Your task to perform on an android device: Go to CNN.com Image 0: 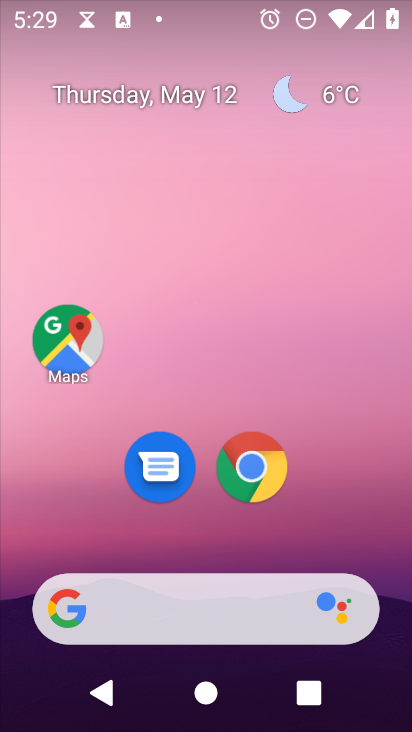
Step 0: drag from (344, 624) to (321, 17)
Your task to perform on an android device: Go to CNN.com Image 1: 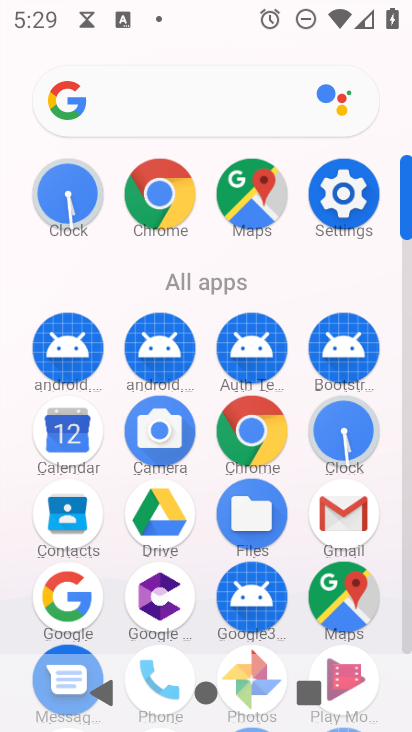
Step 1: click (274, 432)
Your task to perform on an android device: Go to CNN.com Image 2: 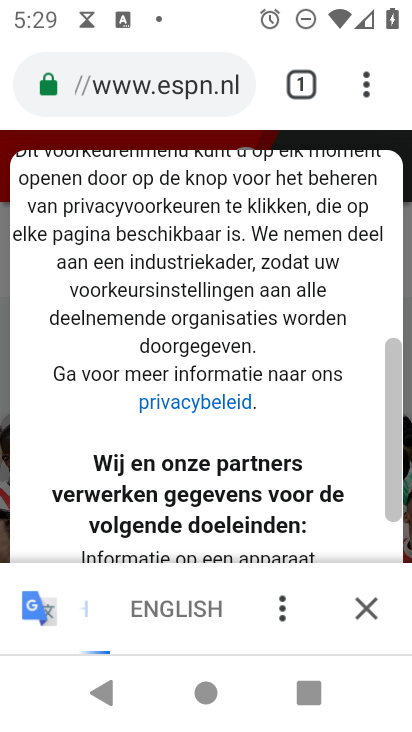
Step 2: click (252, 94)
Your task to perform on an android device: Go to CNN.com Image 3: 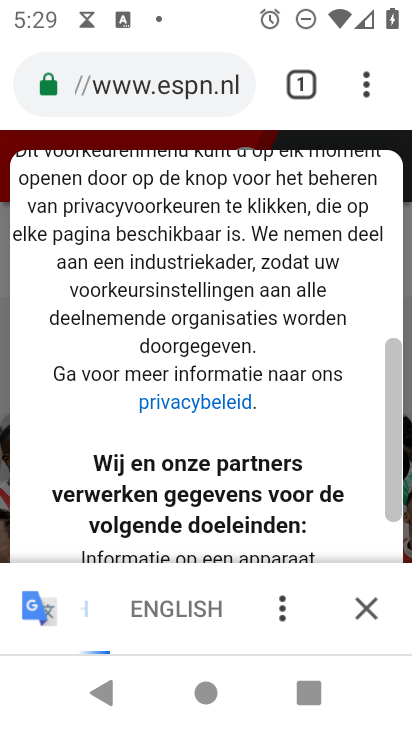
Step 3: click (208, 89)
Your task to perform on an android device: Go to CNN.com Image 4: 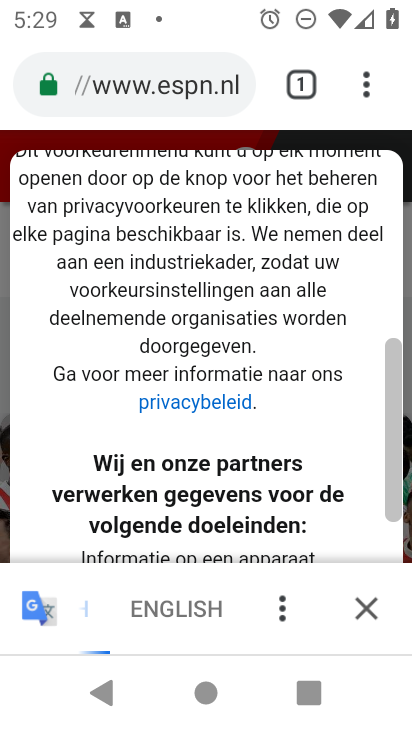
Step 4: click (208, 89)
Your task to perform on an android device: Go to CNN.com Image 5: 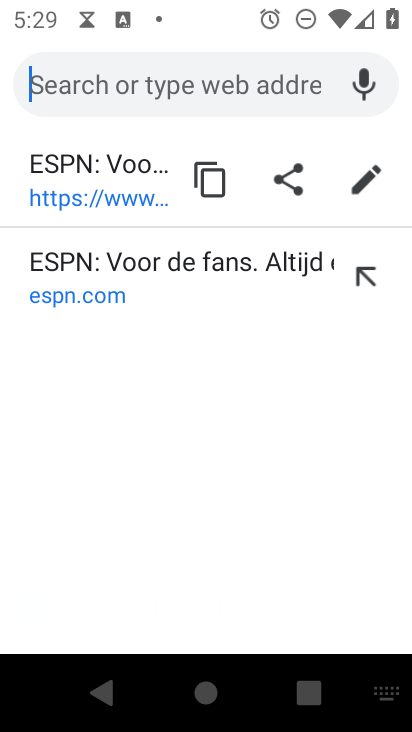
Step 5: type "cnn.com"
Your task to perform on an android device: Go to CNN.com Image 6: 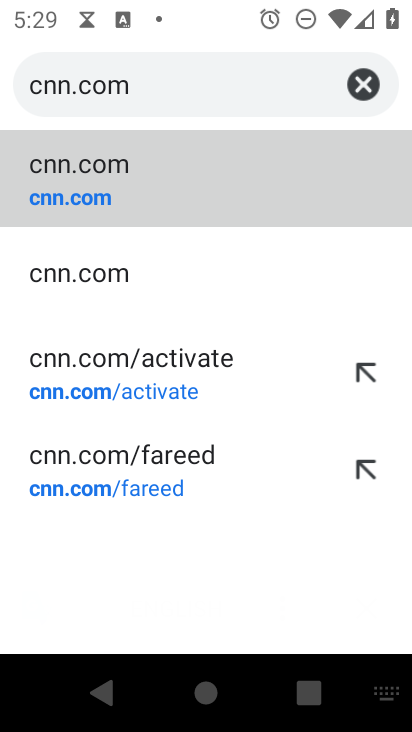
Step 6: click (263, 200)
Your task to perform on an android device: Go to CNN.com Image 7: 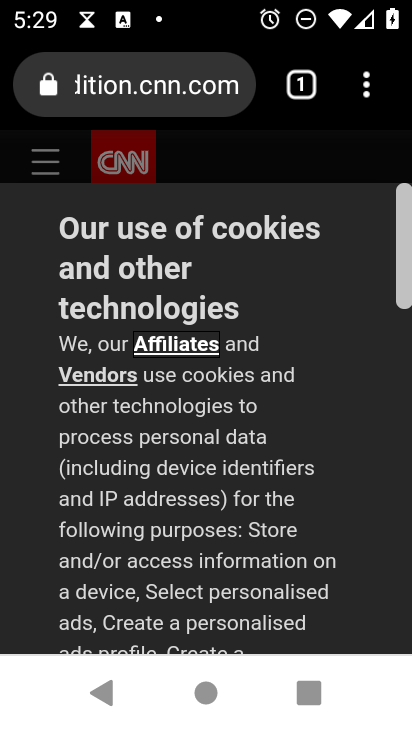
Step 7: task complete